Your task to perform on an android device: uninstall "Upside-Cash back on gas & food" Image 0: 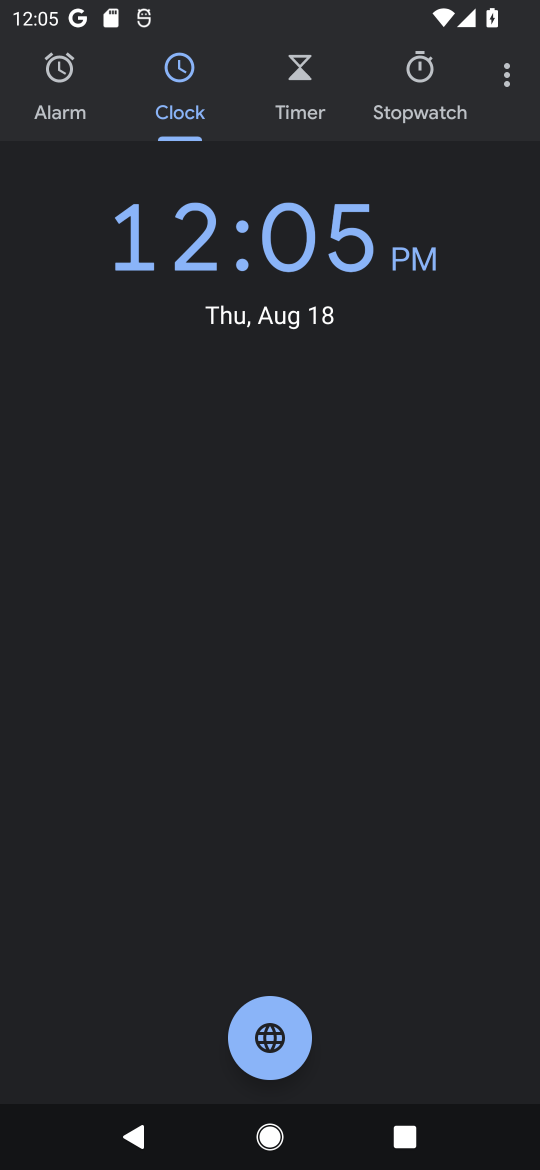
Step 0: press home button
Your task to perform on an android device: uninstall "Upside-Cash back on gas & food" Image 1: 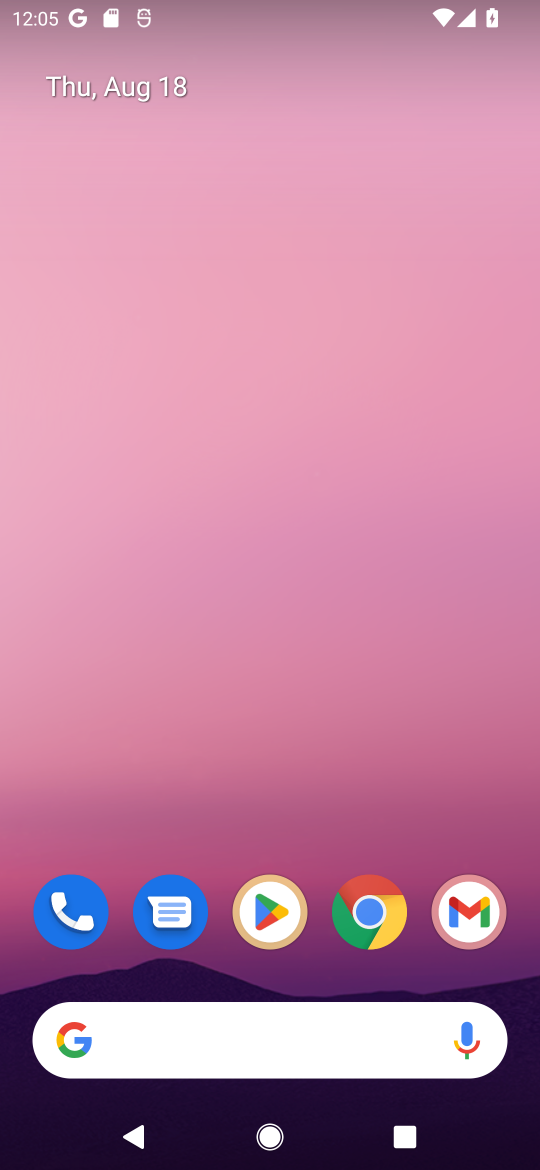
Step 1: click (283, 908)
Your task to perform on an android device: uninstall "Upside-Cash back on gas & food" Image 2: 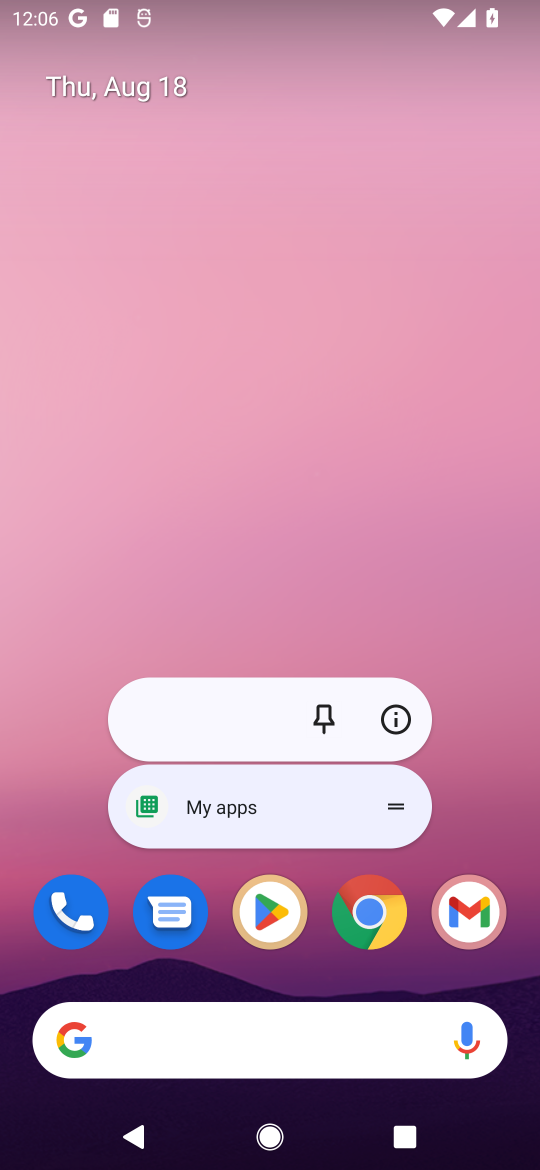
Step 2: click (265, 911)
Your task to perform on an android device: uninstall "Upside-Cash back on gas & food" Image 3: 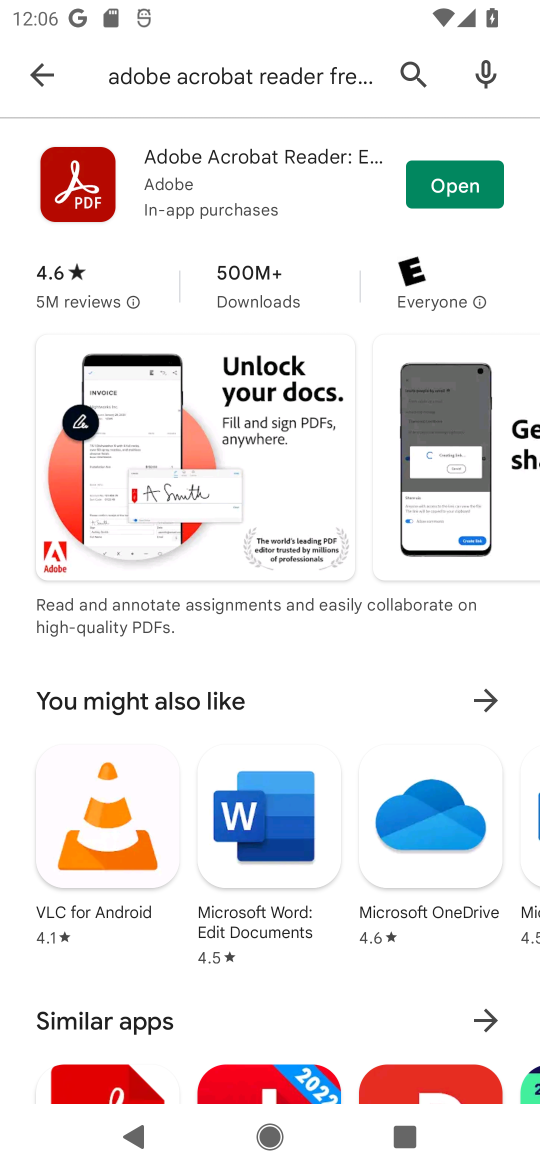
Step 3: click (426, 51)
Your task to perform on an android device: uninstall "Upside-Cash back on gas & food" Image 4: 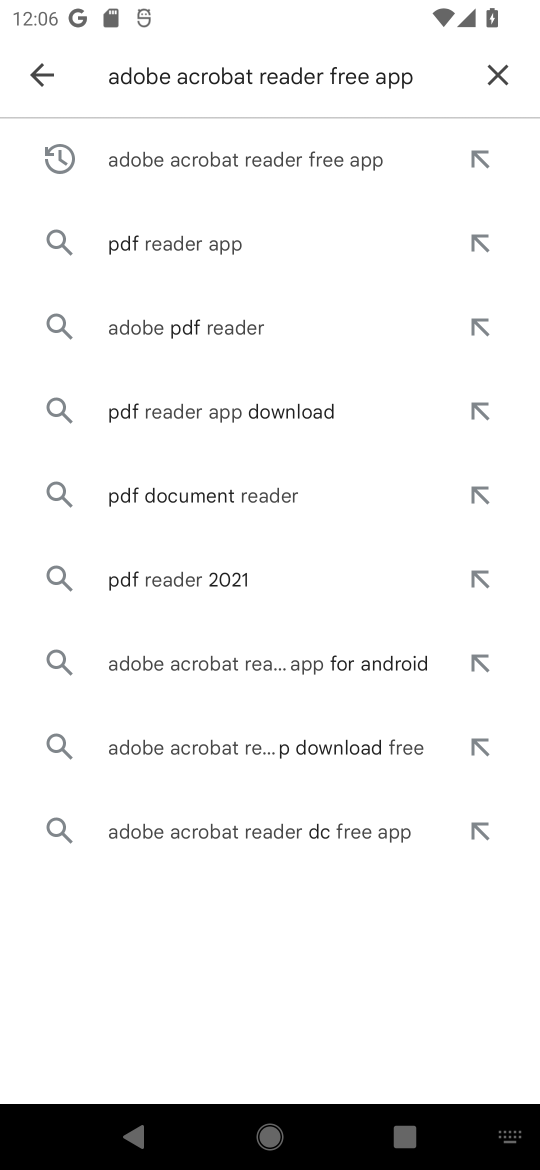
Step 4: click (497, 90)
Your task to perform on an android device: uninstall "Upside-Cash back on gas & food" Image 5: 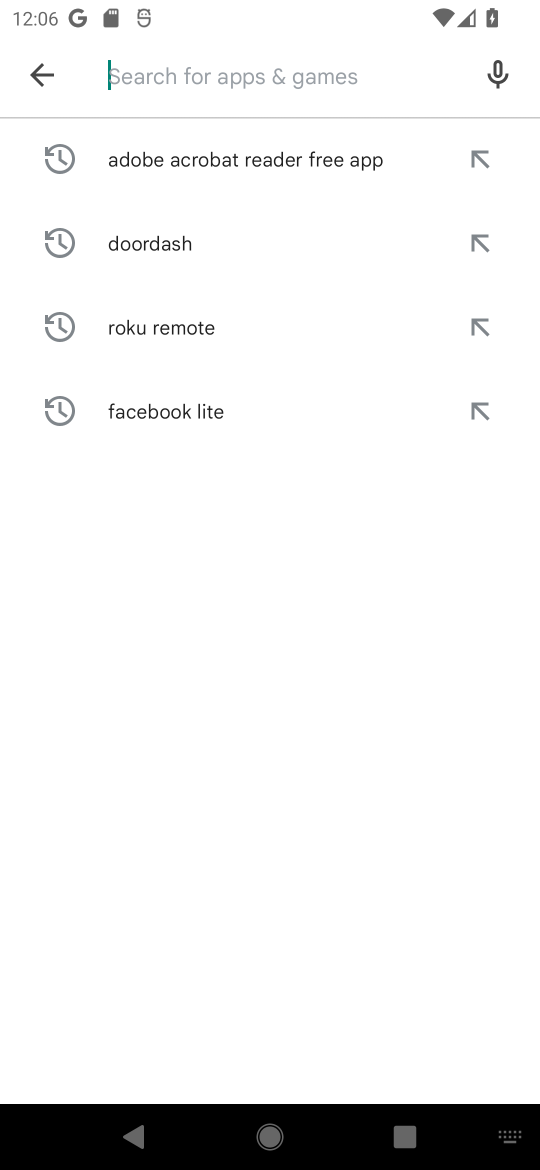
Step 5: click (146, 70)
Your task to perform on an android device: uninstall "Upside-Cash back on gas & food" Image 6: 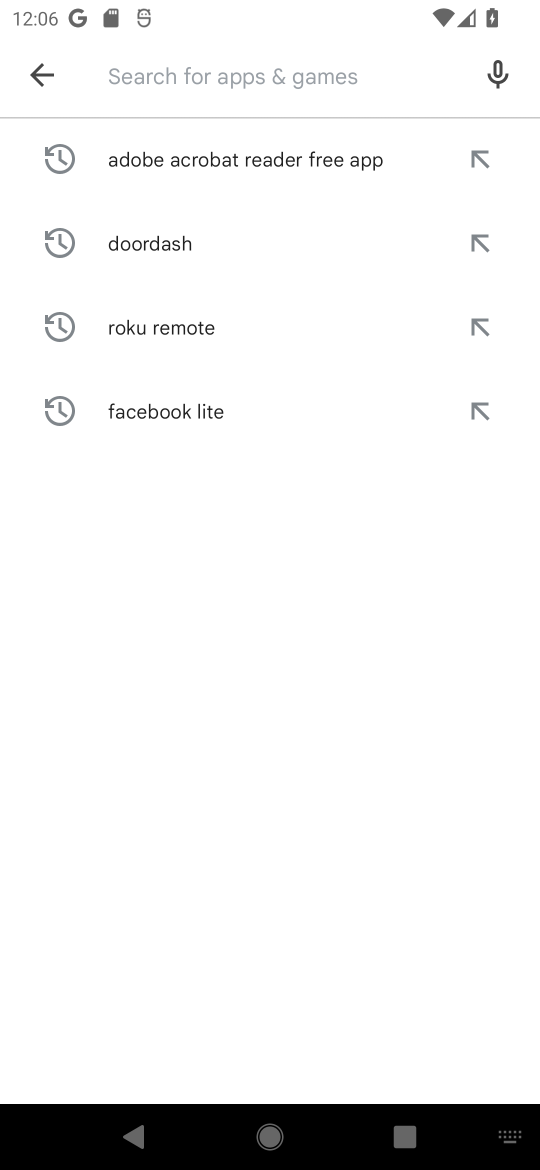
Step 6: type "Upside-Cash back on gas & food"
Your task to perform on an android device: uninstall "Upside-Cash back on gas & food" Image 7: 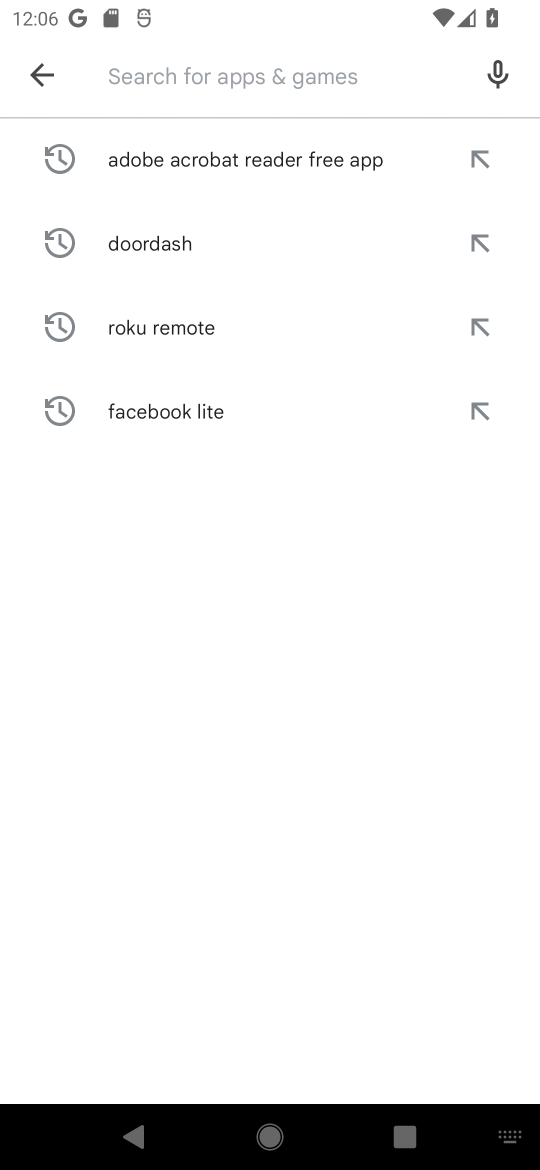
Step 7: click (251, 723)
Your task to perform on an android device: uninstall "Upside-Cash back on gas & food" Image 8: 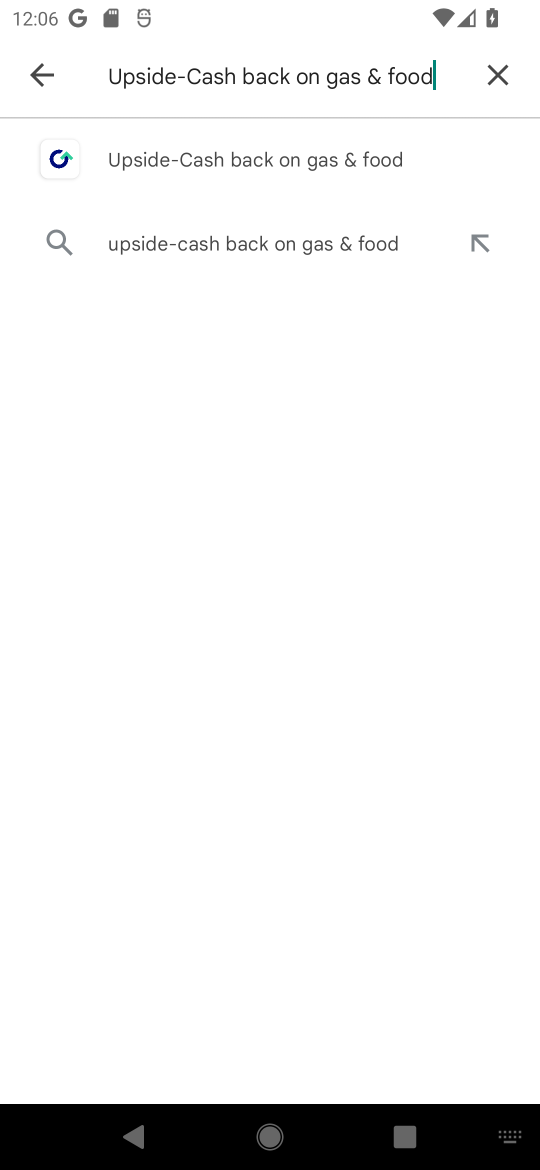
Step 8: click (299, 151)
Your task to perform on an android device: uninstall "Upside-Cash back on gas & food" Image 9: 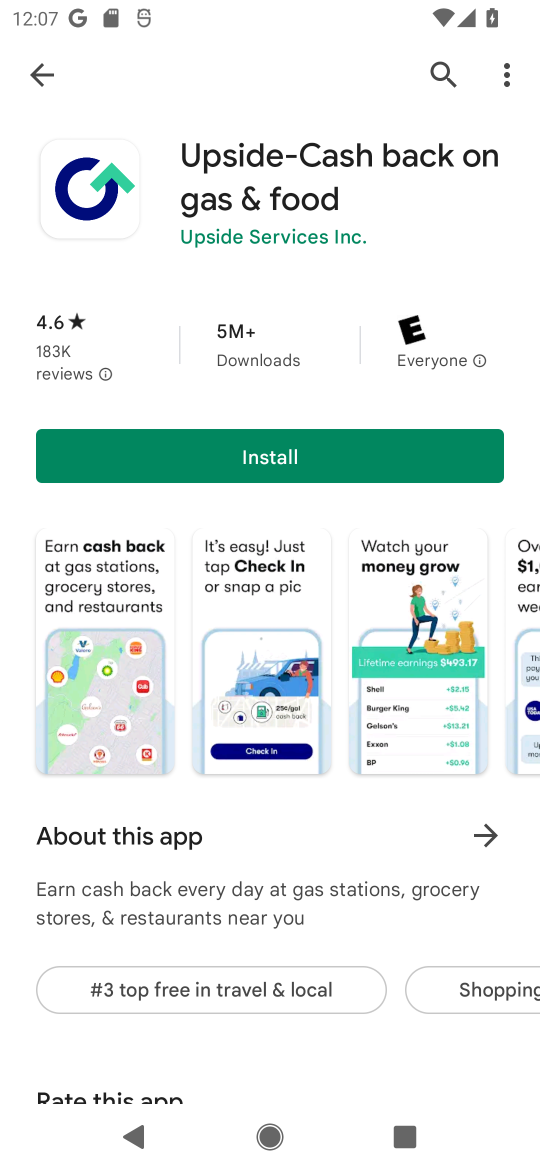
Step 9: task complete